Your task to perform on an android device: Play the last video I watched on Youtube Image 0: 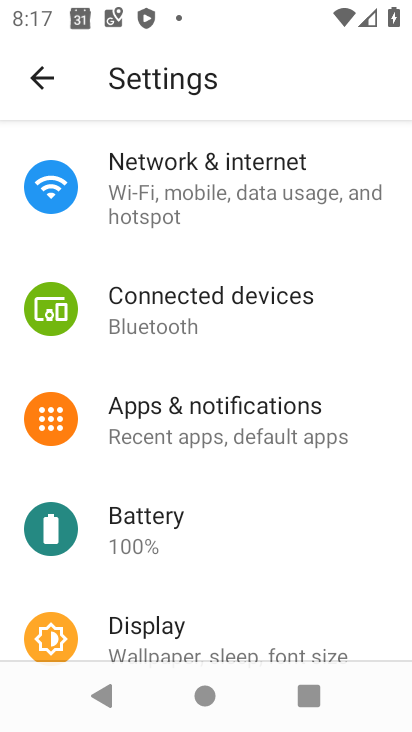
Step 0: press back button
Your task to perform on an android device: Play the last video I watched on Youtube Image 1: 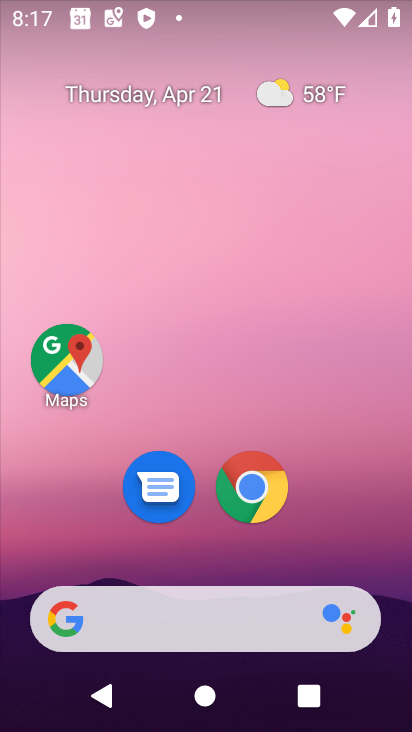
Step 1: drag from (307, 487) to (271, 35)
Your task to perform on an android device: Play the last video I watched on Youtube Image 2: 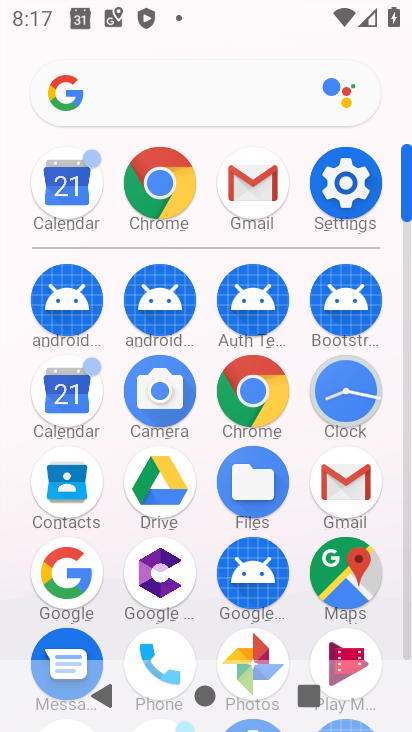
Step 2: drag from (2, 546) to (25, 221)
Your task to perform on an android device: Play the last video I watched on Youtube Image 3: 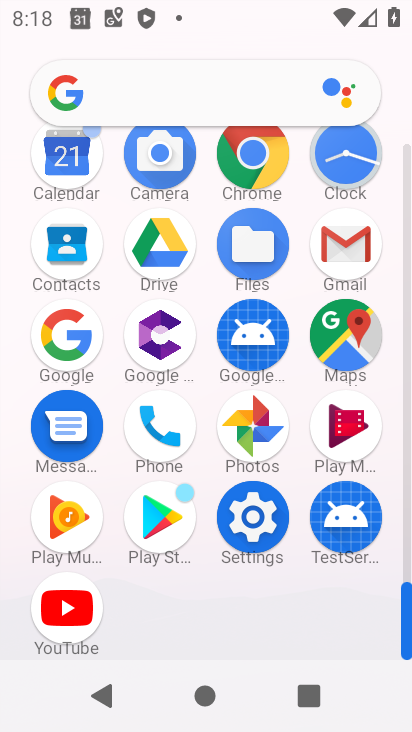
Step 3: click (66, 610)
Your task to perform on an android device: Play the last video I watched on Youtube Image 4: 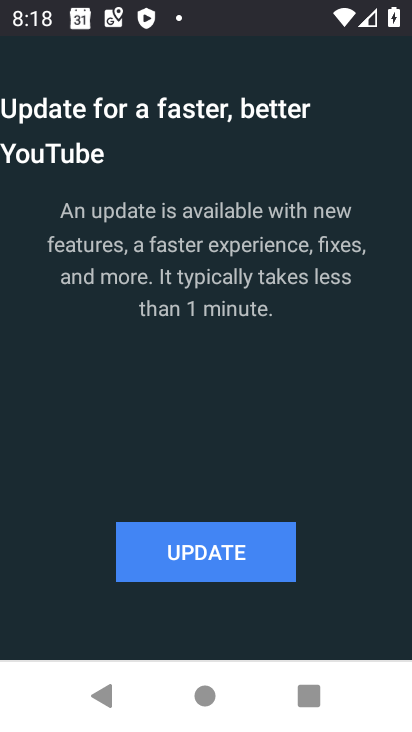
Step 4: click (246, 561)
Your task to perform on an android device: Play the last video I watched on Youtube Image 5: 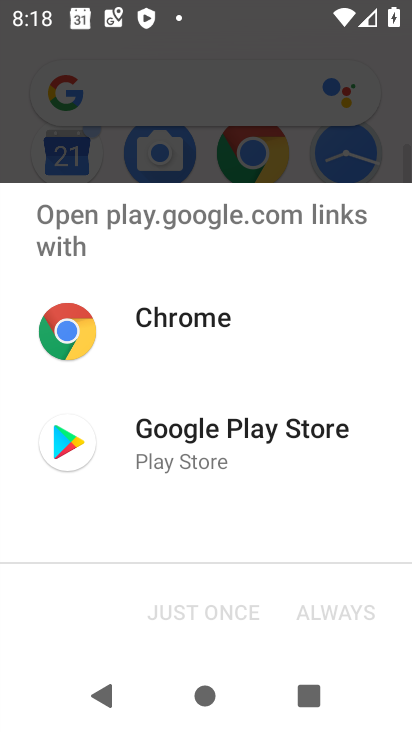
Step 5: click (197, 429)
Your task to perform on an android device: Play the last video I watched on Youtube Image 6: 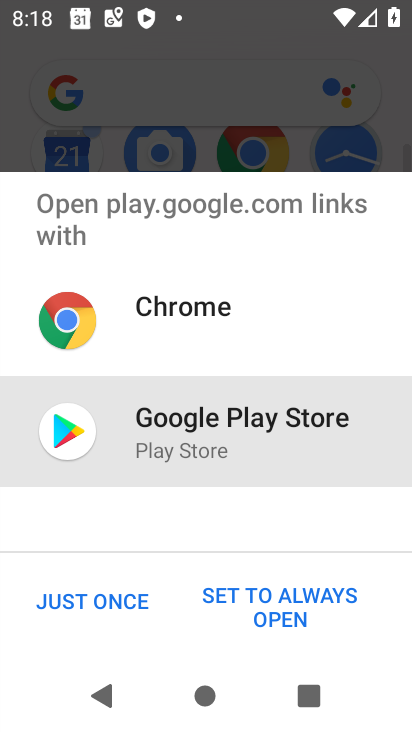
Step 6: click (122, 597)
Your task to perform on an android device: Play the last video I watched on Youtube Image 7: 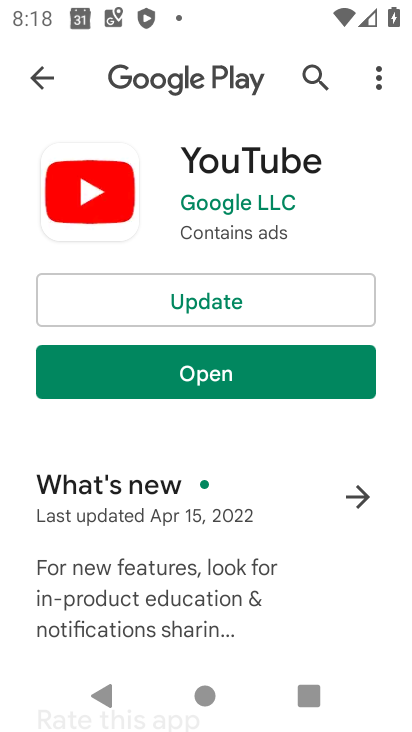
Step 7: click (214, 299)
Your task to perform on an android device: Play the last video I watched on Youtube Image 8: 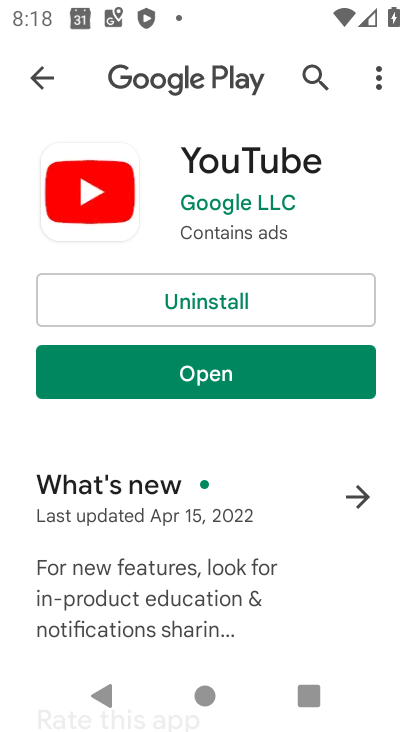
Step 8: click (198, 388)
Your task to perform on an android device: Play the last video I watched on Youtube Image 9: 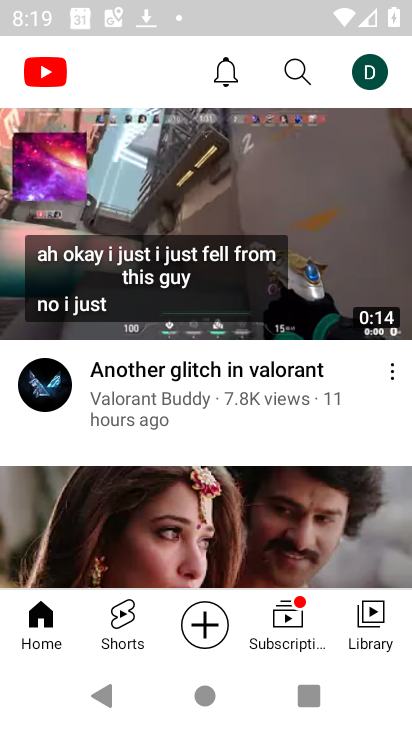
Step 9: click (356, 637)
Your task to perform on an android device: Play the last video I watched on Youtube Image 10: 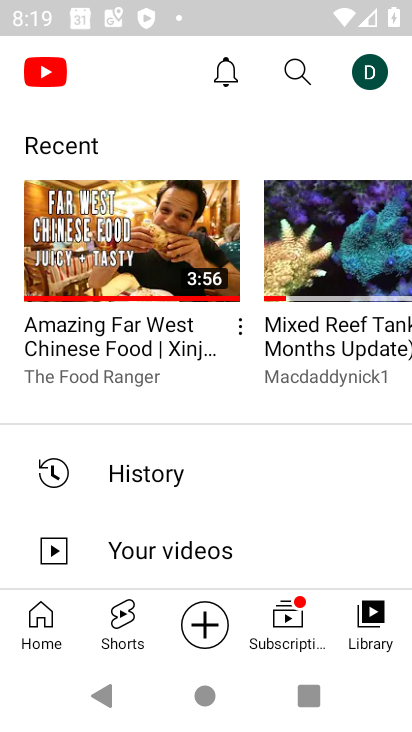
Step 10: click (126, 220)
Your task to perform on an android device: Play the last video I watched on Youtube Image 11: 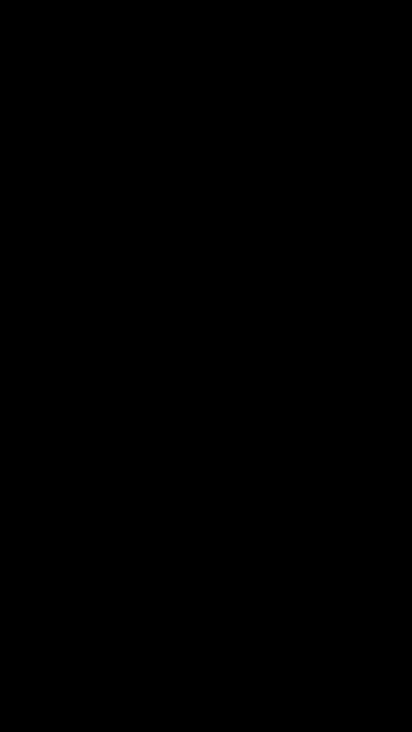
Step 11: task complete